Your task to perform on an android device: check out phone information Image 0: 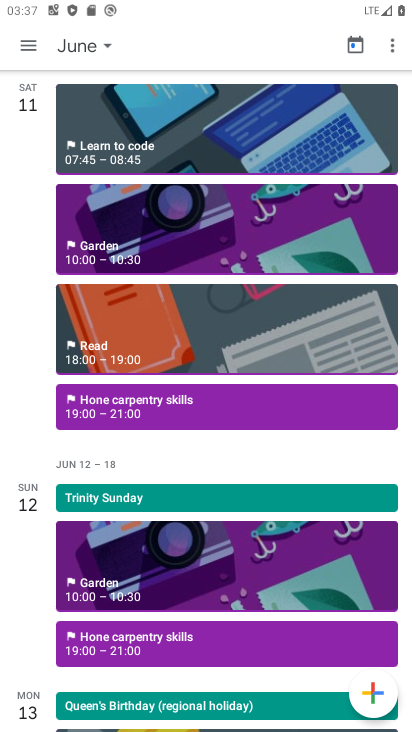
Step 0: press home button
Your task to perform on an android device: check out phone information Image 1: 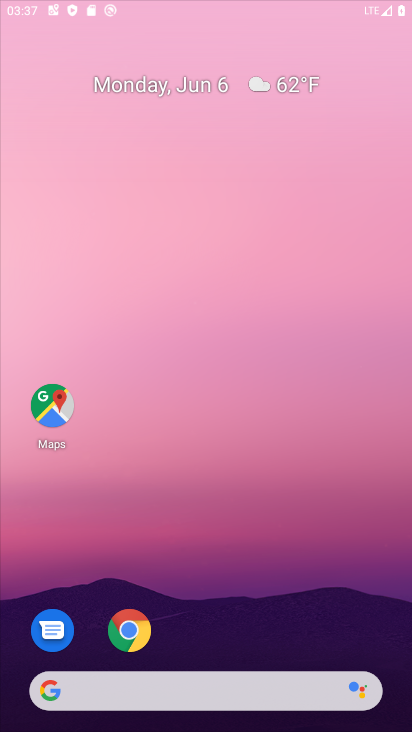
Step 1: drag from (252, 698) to (261, 107)
Your task to perform on an android device: check out phone information Image 2: 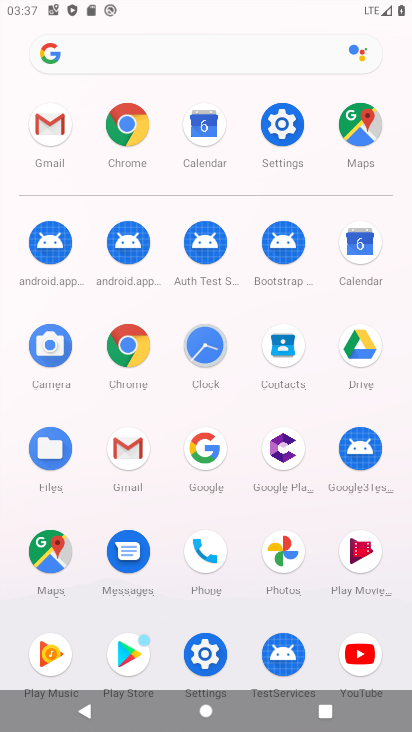
Step 2: click (202, 563)
Your task to perform on an android device: check out phone information Image 3: 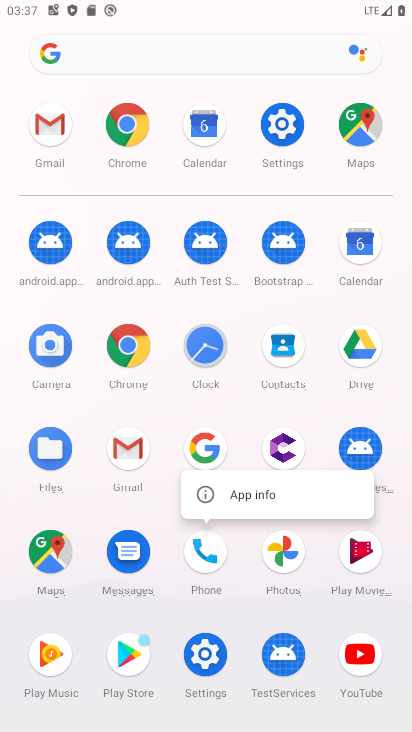
Step 3: click (226, 500)
Your task to perform on an android device: check out phone information Image 4: 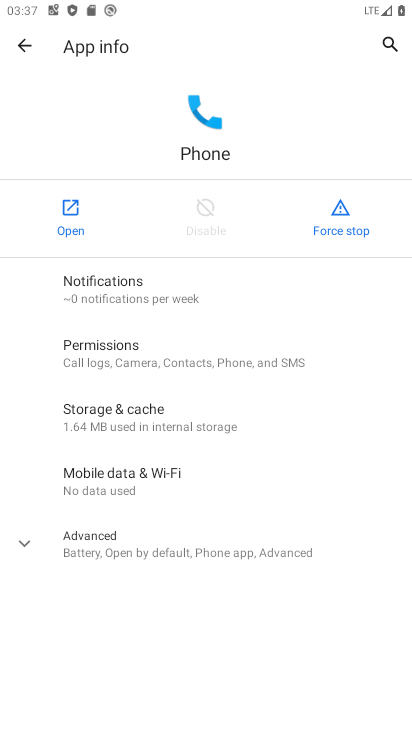
Step 4: task complete